Your task to perform on an android device: Open calendar and show me the third week of next month Image 0: 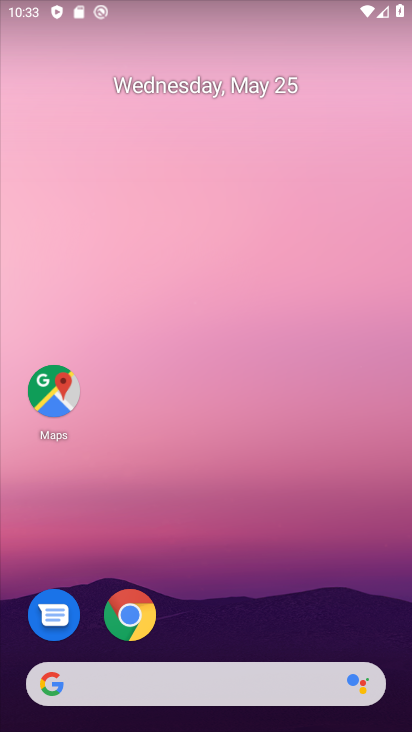
Step 0: drag from (156, 412) to (173, 7)
Your task to perform on an android device: Open calendar and show me the third week of next month Image 1: 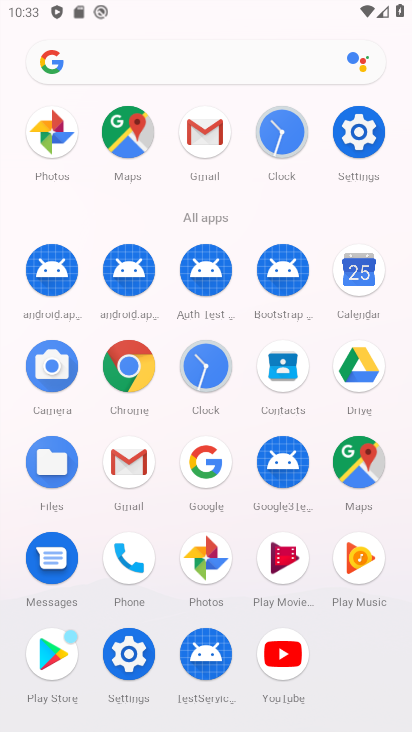
Step 1: click (358, 279)
Your task to perform on an android device: Open calendar and show me the third week of next month Image 2: 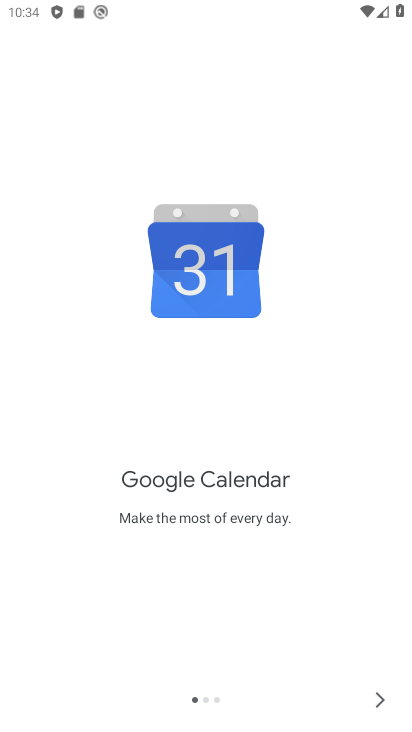
Step 2: click (372, 700)
Your task to perform on an android device: Open calendar and show me the third week of next month Image 3: 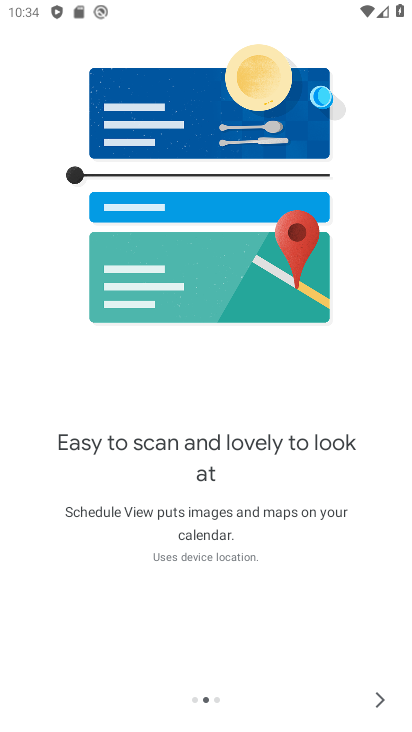
Step 3: click (376, 701)
Your task to perform on an android device: Open calendar and show me the third week of next month Image 4: 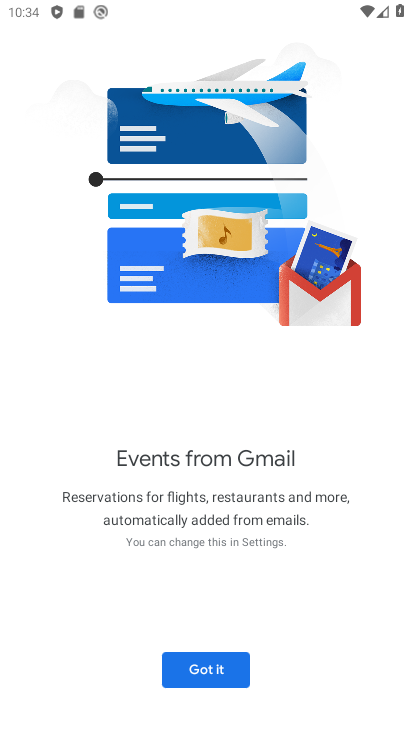
Step 4: click (213, 669)
Your task to perform on an android device: Open calendar and show me the third week of next month Image 5: 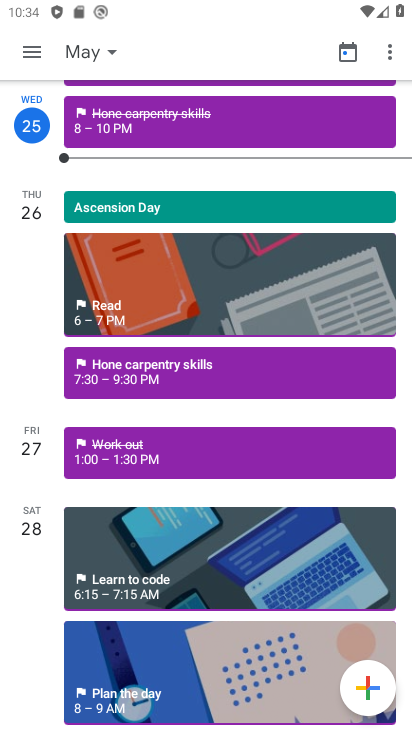
Step 5: click (107, 55)
Your task to perform on an android device: Open calendar and show me the third week of next month Image 6: 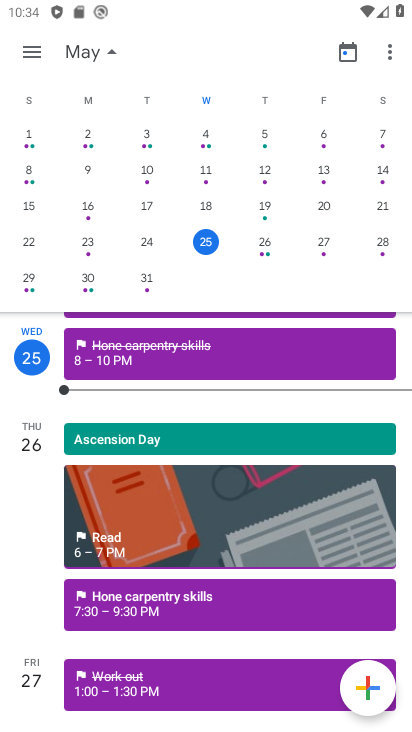
Step 6: drag from (354, 213) to (6, 252)
Your task to perform on an android device: Open calendar and show me the third week of next month Image 7: 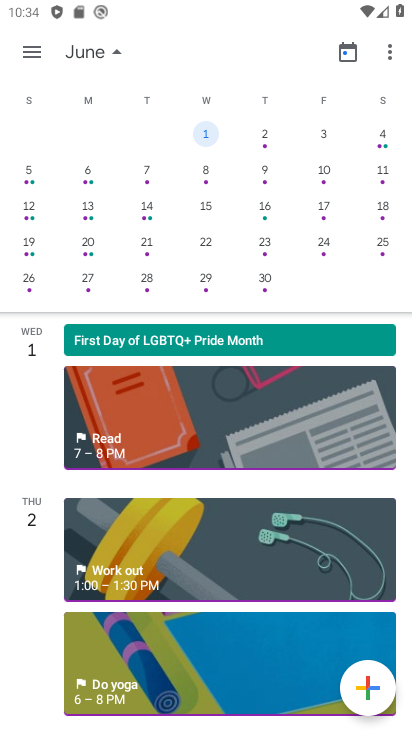
Step 7: click (28, 213)
Your task to perform on an android device: Open calendar and show me the third week of next month Image 8: 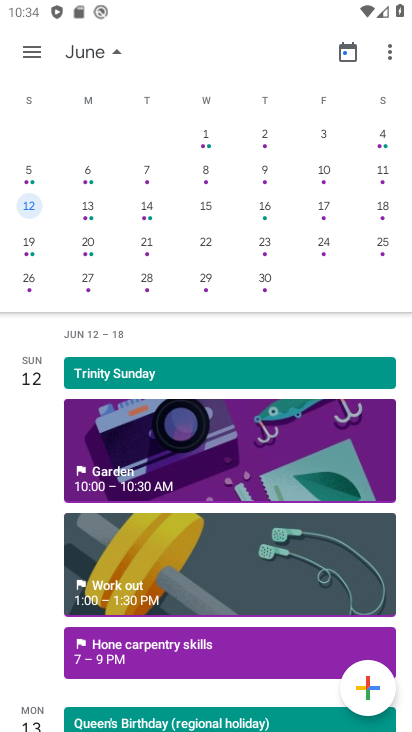
Step 8: task complete